Your task to perform on an android device: Go to calendar. Show me events next week Image 0: 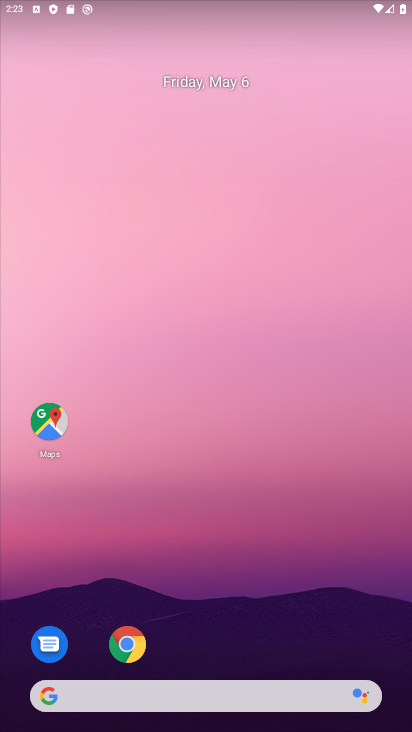
Step 0: drag from (214, 721) to (137, 34)
Your task to perform on an android device: Go to calendar. Show me events next week Image 1: 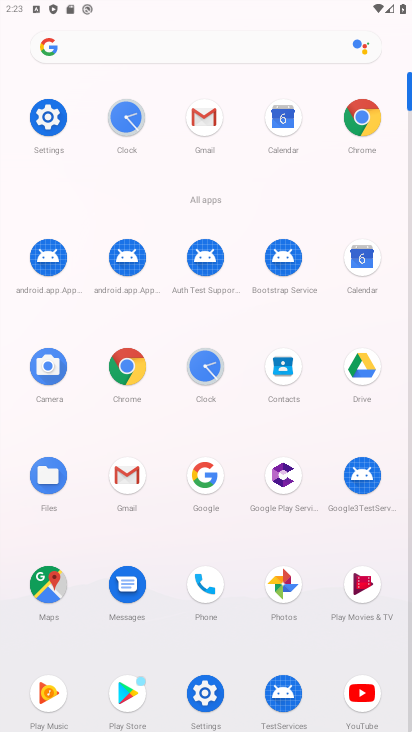
Step 1: click (292, 126)
Your task to perform on an android device: Go to calendar. Show me events next week Image 2: 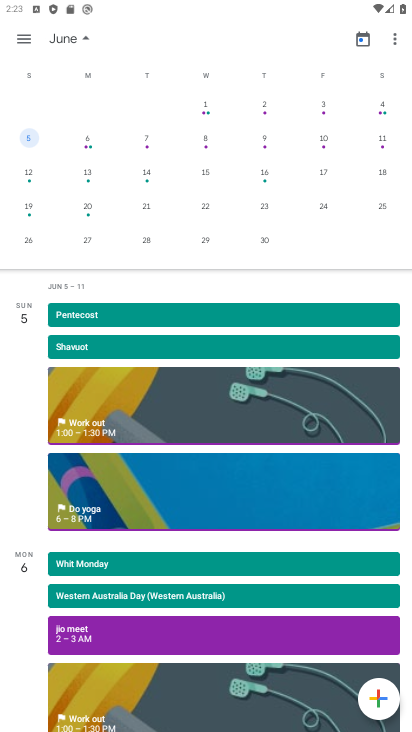
Step 2: drag from (122, 156) to (405, 170)
Your task to perform on an android device: Go to calendar. Show me events next week Image 3: 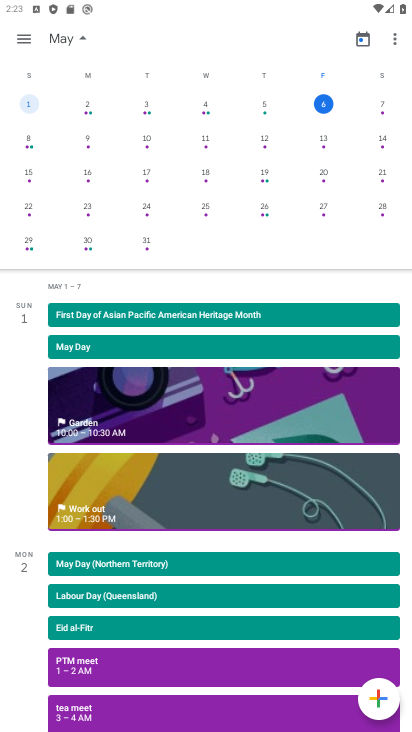
Step 3: drag from (90, 172) to (397, 178)
Your task to perform on an android device: Go to calendar. Show me events next week Image 4: 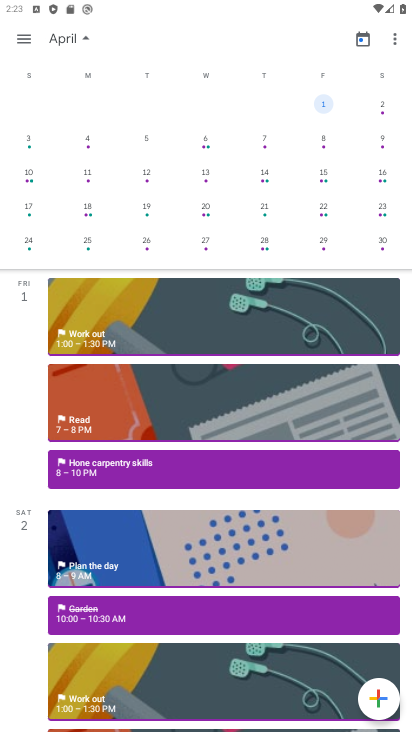
Step 4: drag from (46, 138) to (411, 159)
Your task to perform on an android device: Go to calendar. Show me events next week Image 5: 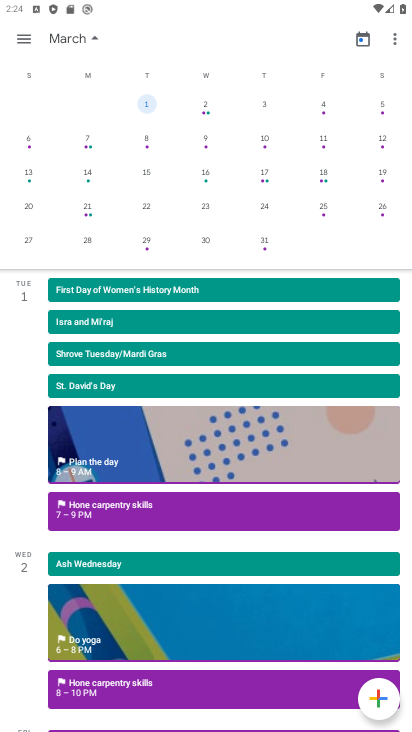
Step 5: drag from (379, 158) to (161, 171)
Your task to perform on an android device: Go to calendar. Show me events next week Image 6: 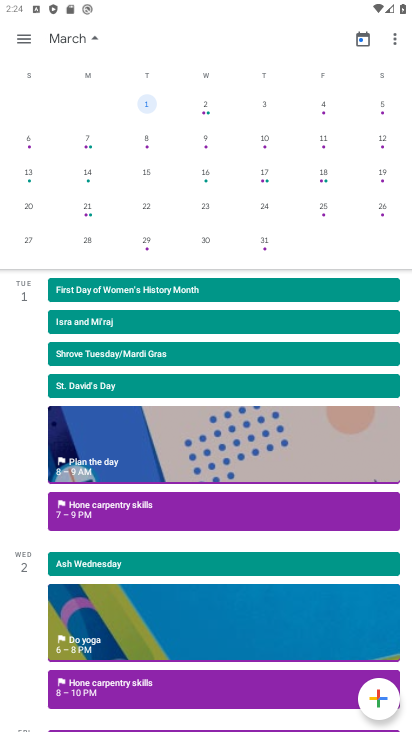
Step 6: drag from (373, 152) to (50, 224)
Your task to perform on an android device: Go to calendar. Show me events next week Image 7: 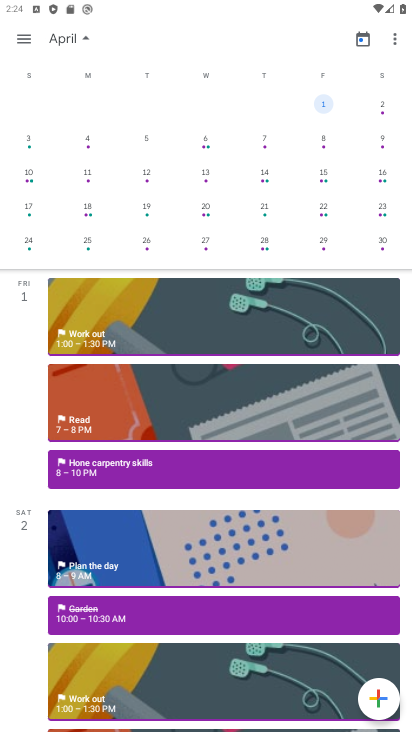
Step 7: drag from (348, 134) to (29, 262)
Your task to perform on an android device: Go to calendar. Show me events next week Image 8: 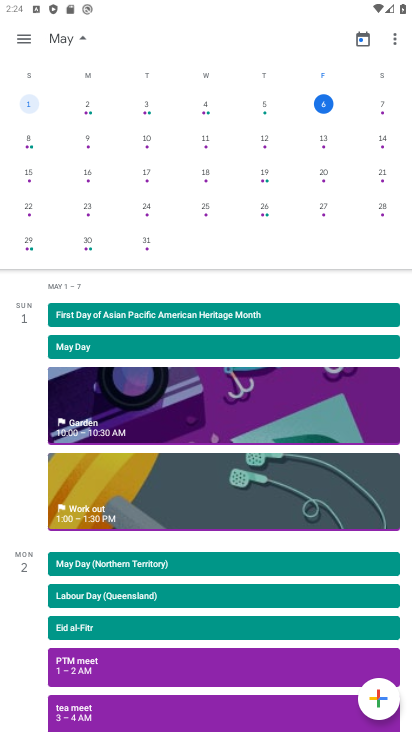
Step 8: click (26, 138)
Your task to perform on an android device: Go to calendar. Show me events next week Image 9: 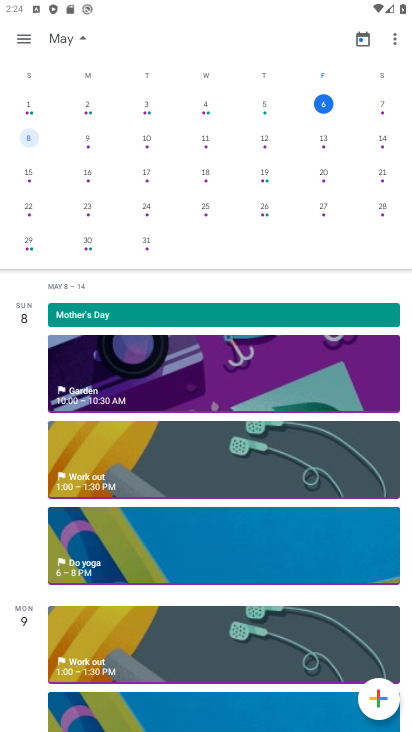
Step 9: task complete